Your task to perform on an android device: turn off sleep mode Image 0: 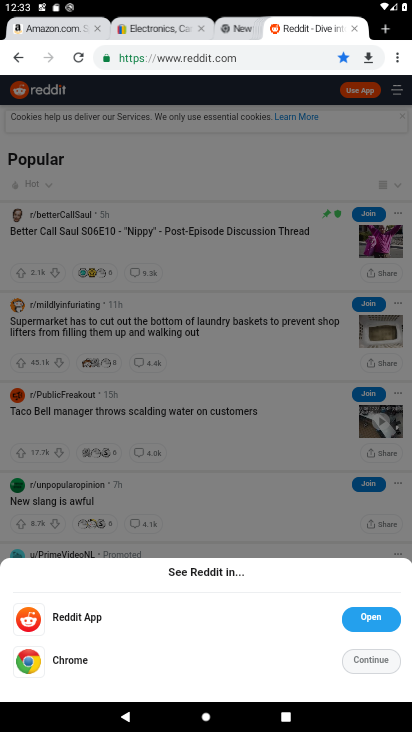
Step 0: press home button
Your task to perform on an android device: turn off sleep mode Image 1: 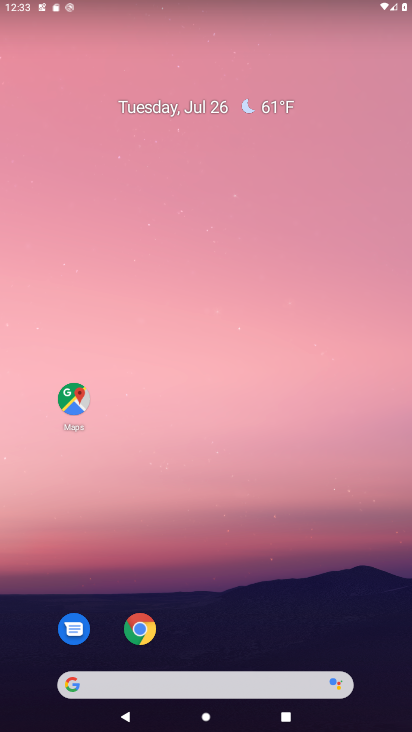
Step 1: drag from (201, 642) to (209, 162)
Your task to perform on an android device: turn off sleep mode Image 2: 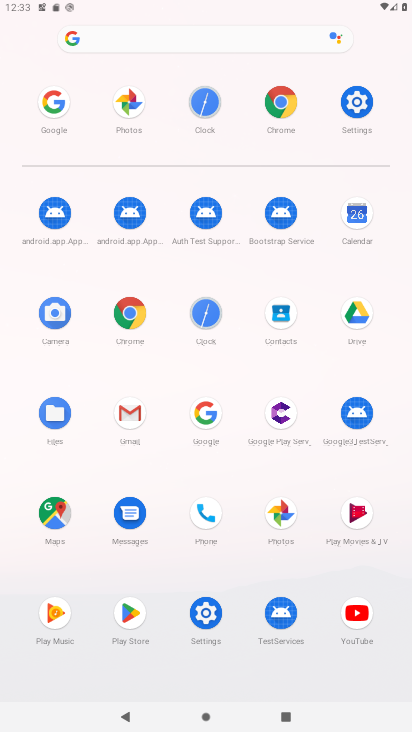
Step 2: click (353, 95)
Your task to perform on an android device: turn off sleep mode Image 3: 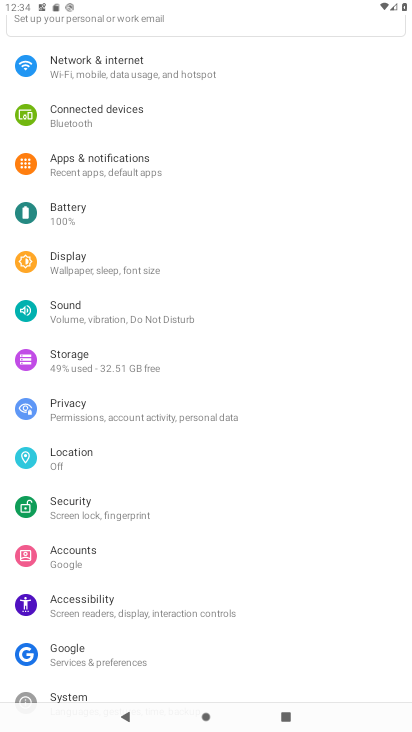
Step 3: click (99, 262)
Your task to perform on an android device: turn off sleep mode Image 4: 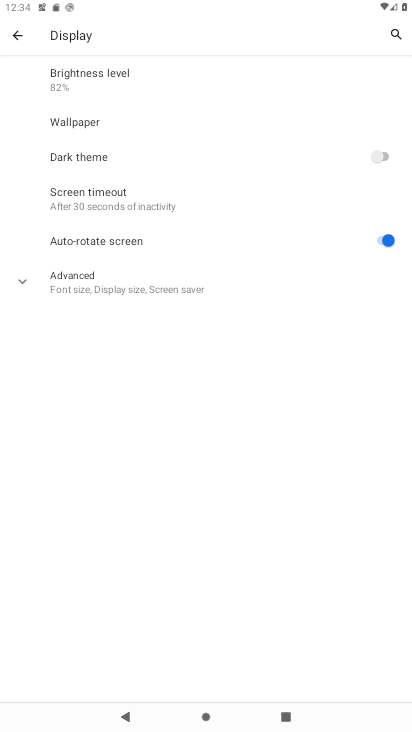
Step 4: click (120, 197)
Your task to perform on an android device: turn off sleep mode Image 5: 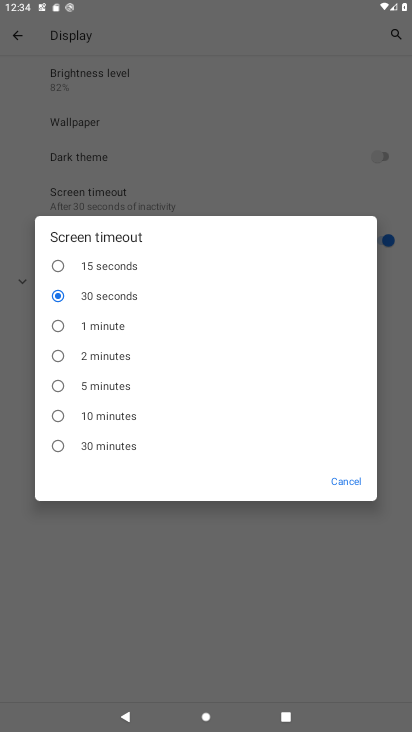
Step 5: click (120, 381)
Your task to perform on an android device: turn off sleep mode Image 6: 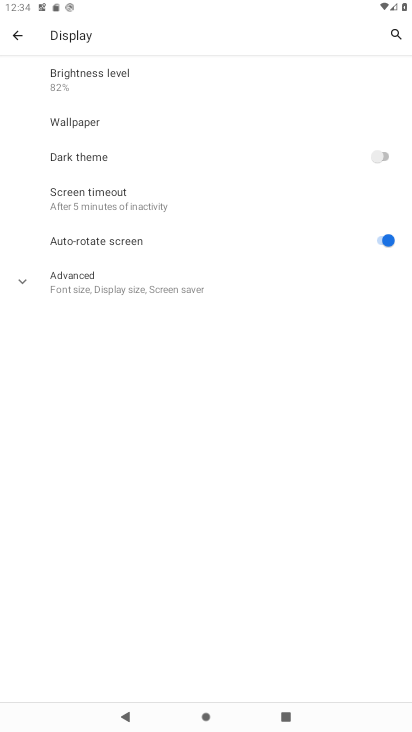
Step 6: task complete